Your task to perform on an android device: change keyboard looks Image 0: 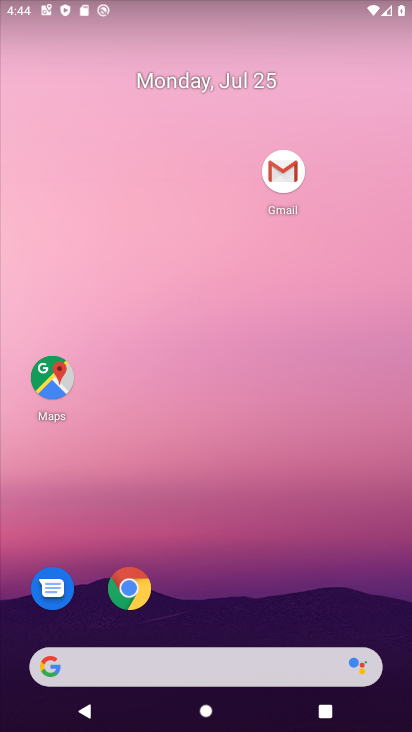
Step 0: drag from (343, 590) to (338, 41)
Your task to perform on an android device: change keyboard looks Image 1: 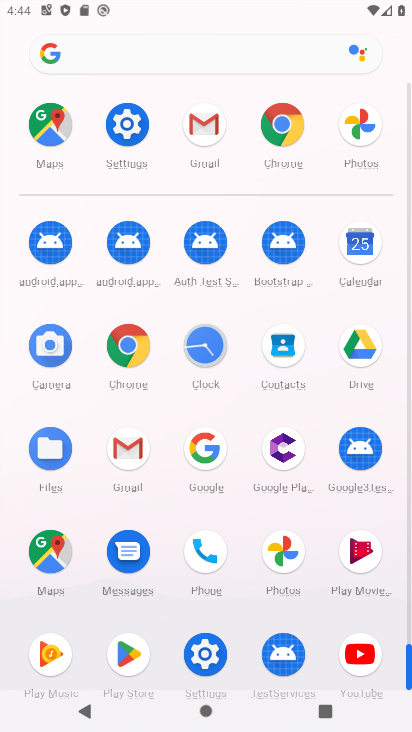
Step 1: click (134, 132)
Your task to perform on an android device: change keyboard looks Image 2: 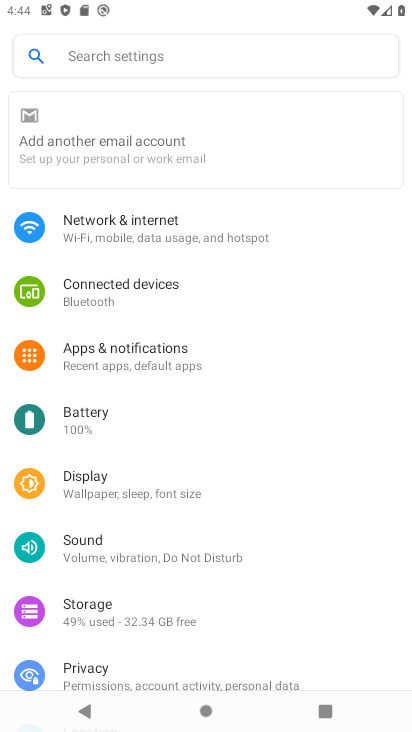
Step 2: drag from (245, 604) to (242, 53)
Your task to perform on an android device: change keyboard looks Image 3: 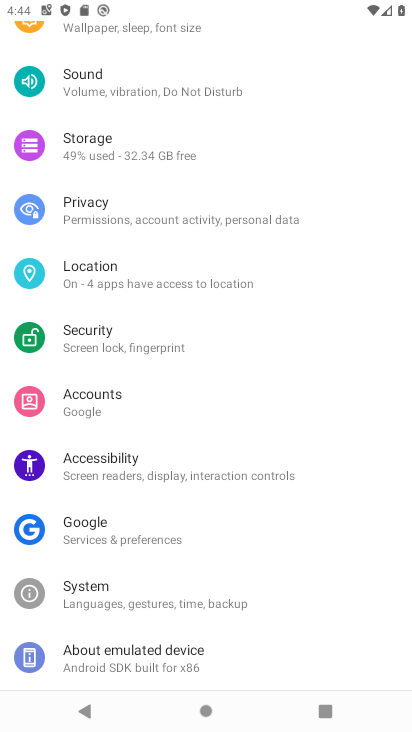
Step 3: click (78, 598)
Your task to perform on an android device: change keyboard looks Image 4: 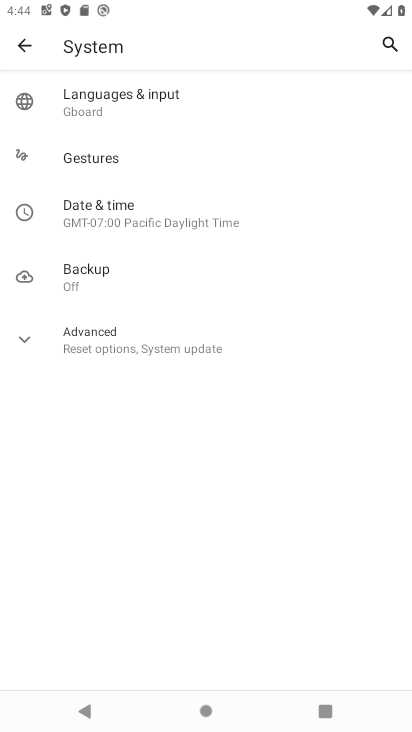
Step 4: click (124, 91)
Your task to perform on an android device: change keyboard looks Image 5: 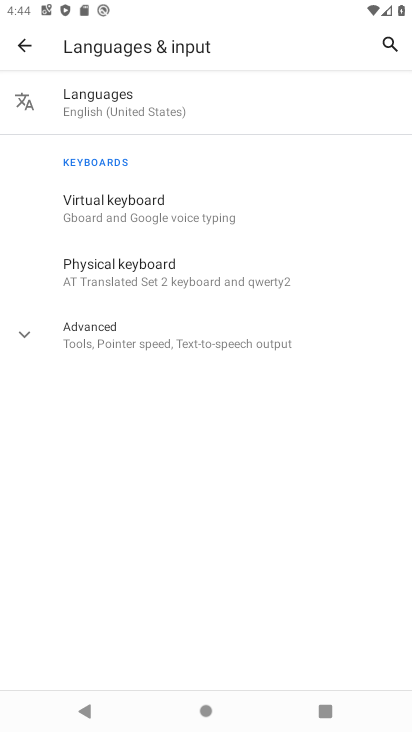
Step 5: click (119, 220)
Your task to perform on an android device: change keyboard looks Image 6: 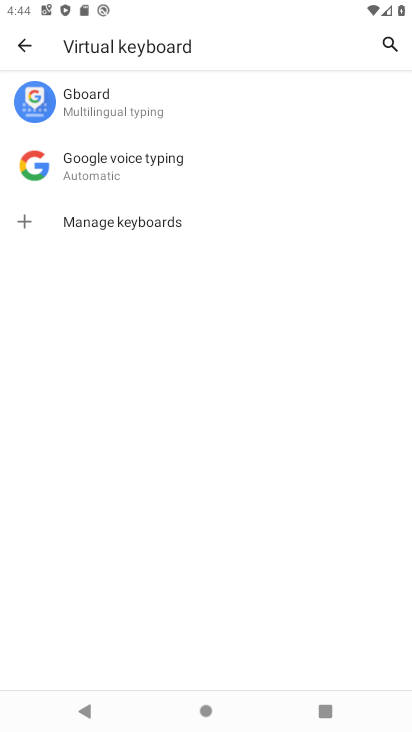
Step 6: click (114, 109)
Your task to perform on an android device: change keyboard looks Image 7: 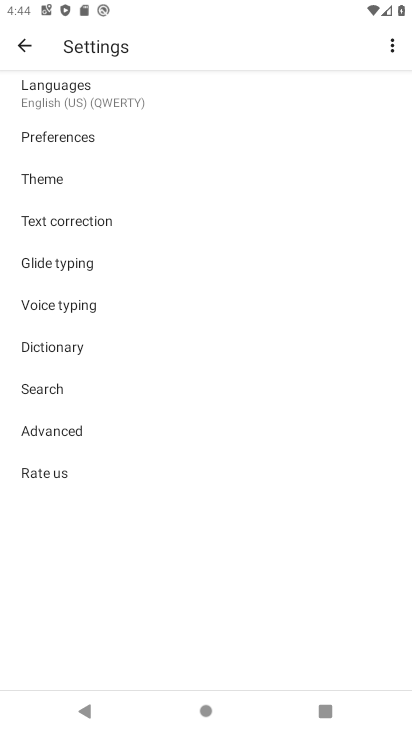
Step 7: click (28, 191)
Your task to perform on an android device: change keyboard looks Image 8: 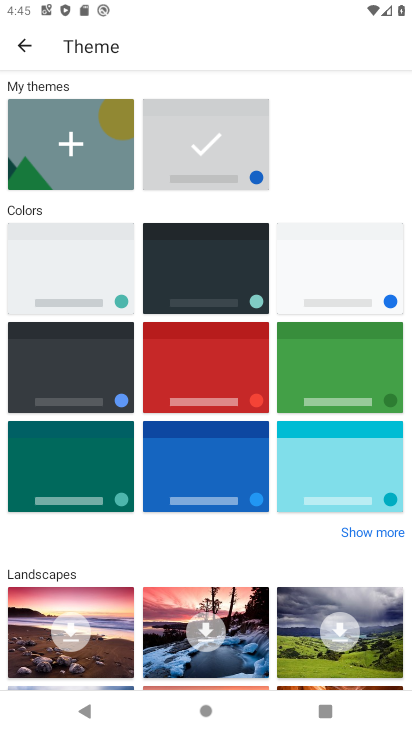
Step 8: click (60, 271)
Your task to perform on an android device: change keyboard looks Image 9: 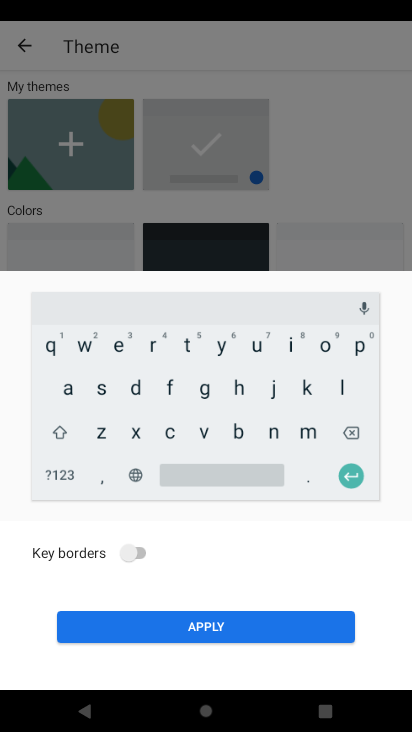
Step 9: click (299, 626)
Your task to perform on an android device: change keyboard looks Image 10: 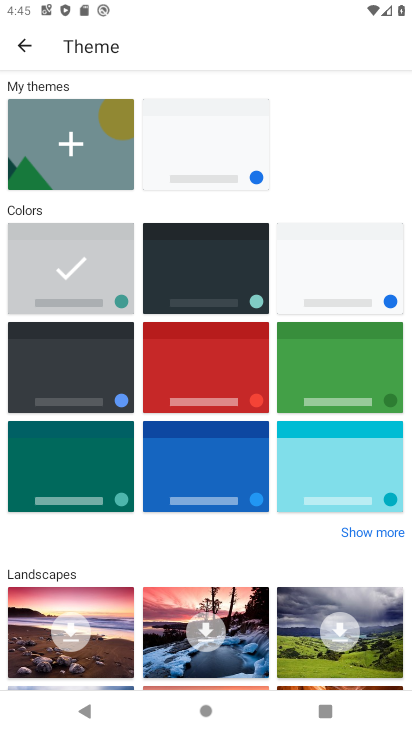
Step 10: task complete